Your task to perform on an android device: toggle sleep mode Image 0: 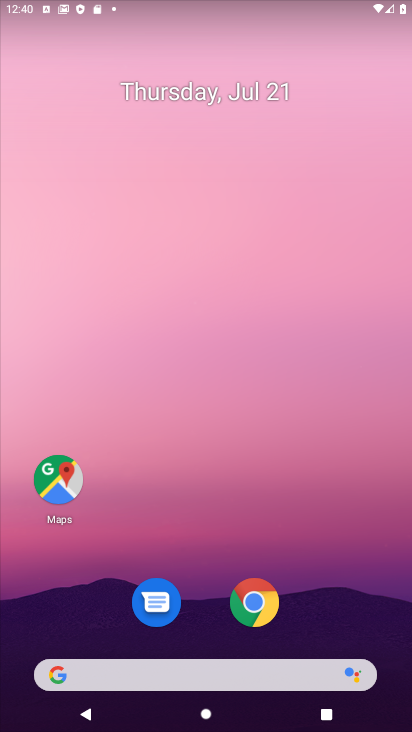
Step 0: drag from (376, 599) to (254, 4)
Your task to perform on an android device: toggle sleep mode Image 1: 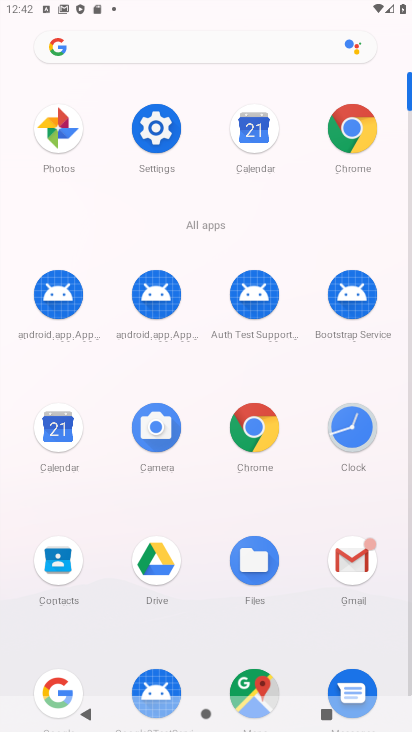
Step 1: click (154, 131)
Your task to perform on an android device: toggle sleep mode Image 2: 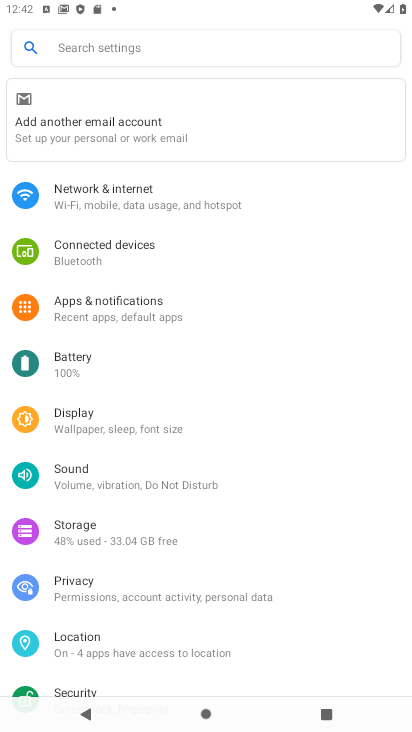
Step 2: task complete